Your task to perform on an android device: Open my contact list Image 0: 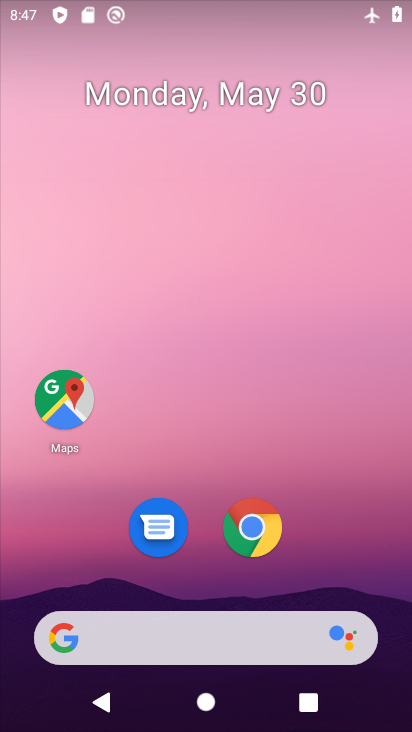
Step 0: drag from (206, 701) to (173, 31)
Your task to perform on an android device: Open my contact list Image 1: 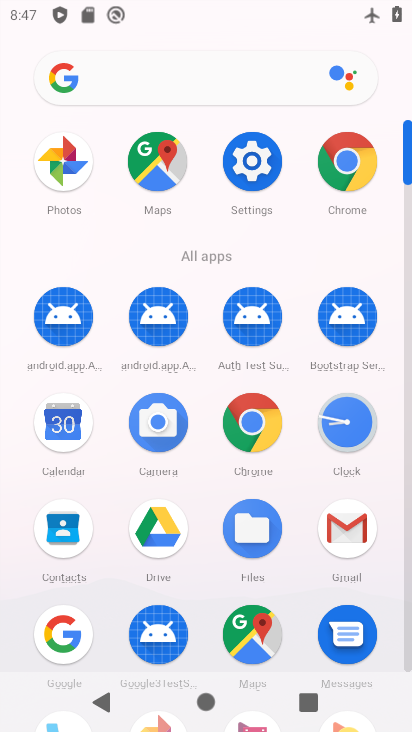
Step 1: click (83, 527)
Your task to perform on an android device: Open my contact list Image 2: 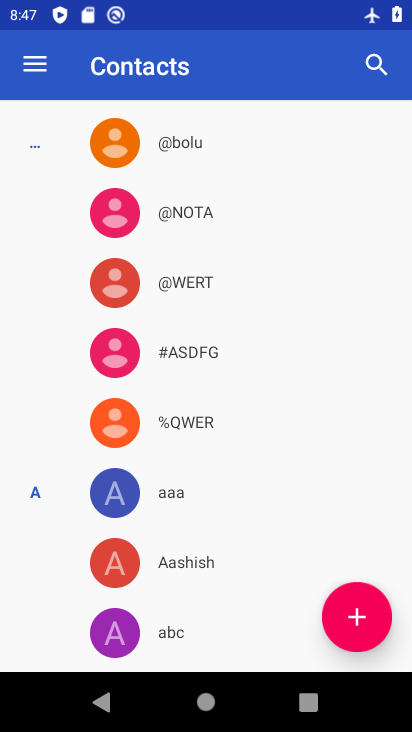
Step 2: task complete